Your task to perform on an android device: delete browsing data in the chrome app Image 0: 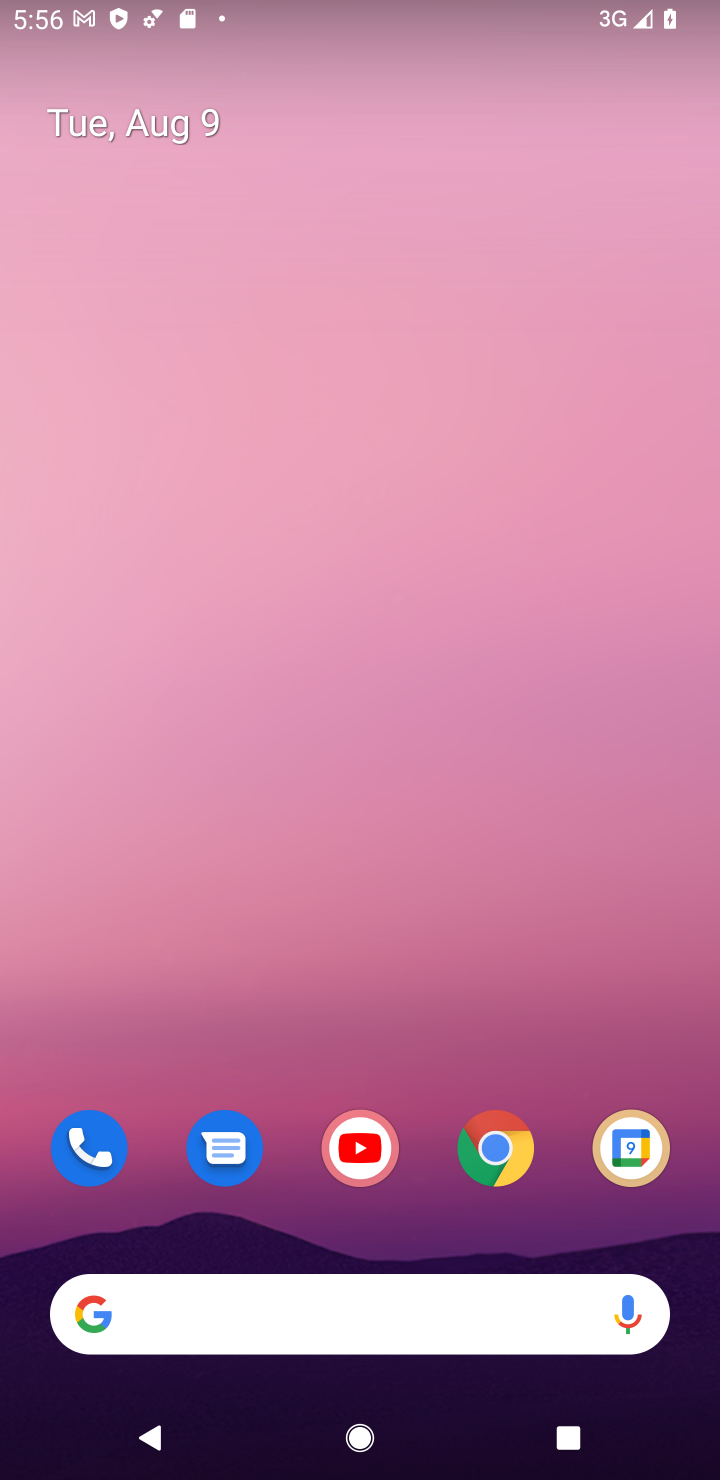
Step 0: click (507, 1159)
Your task to perform on an android device: delete browsing data in the chrome app Image 1: 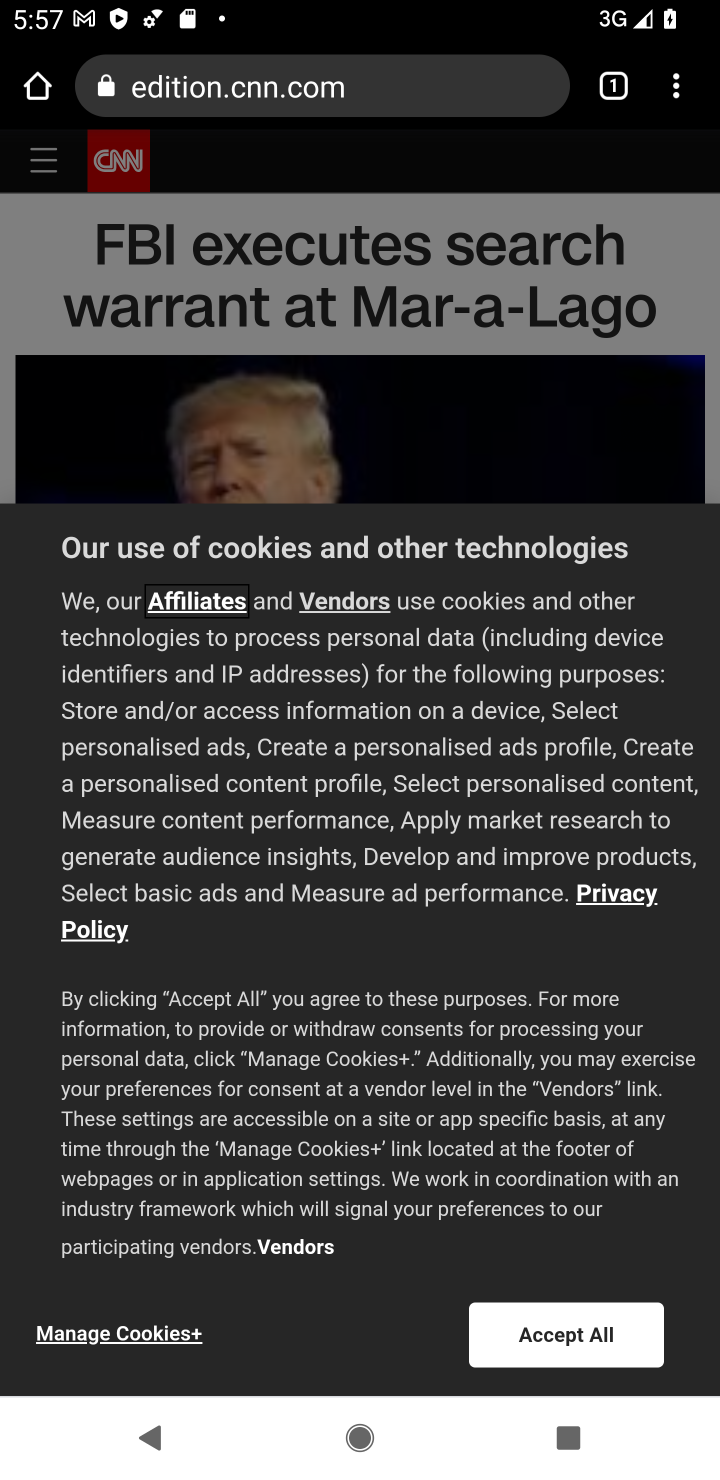
Step 1: click (676, 87)
Your task to perform on an android device: delete browsing data in the chrome app Image 2: 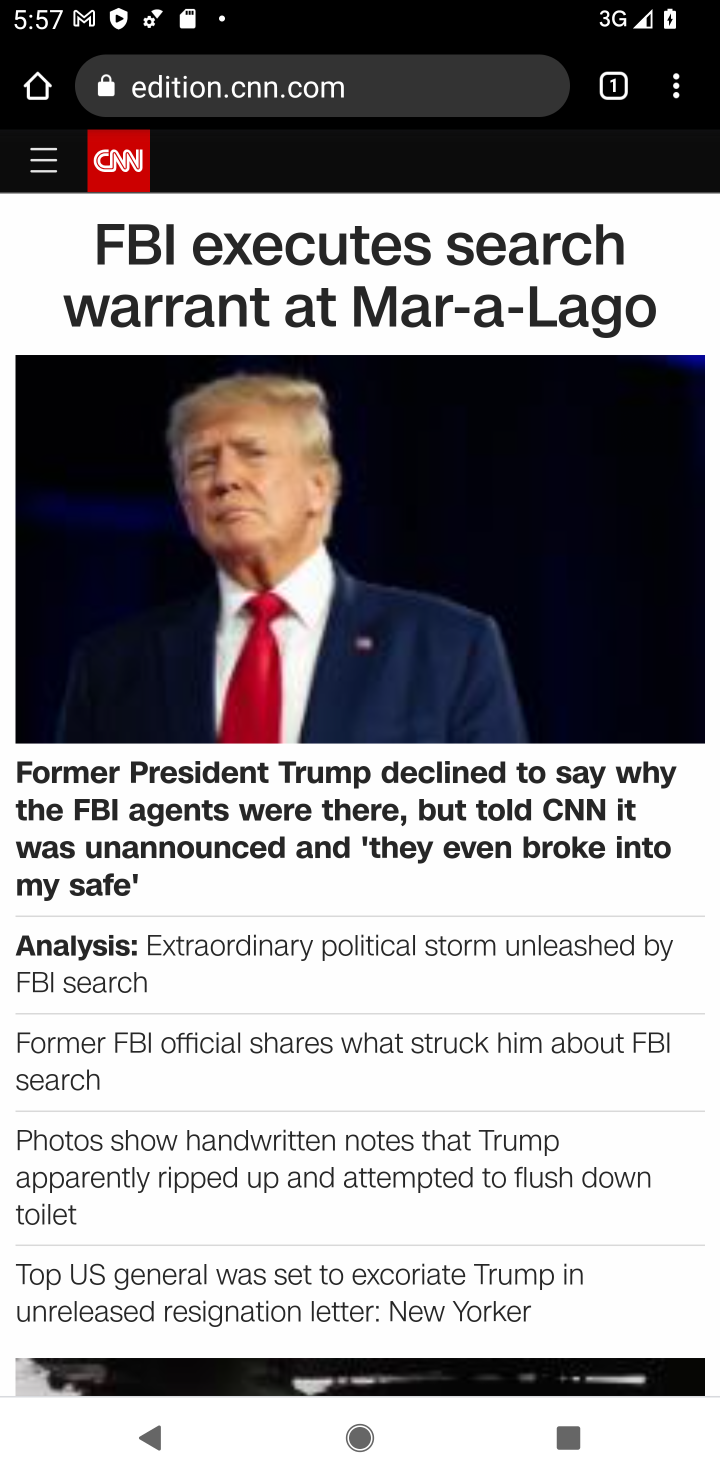
Step 2: click (684, 101)
Your task to perform on an android device: delete browsing data in the chrome app Image 3: 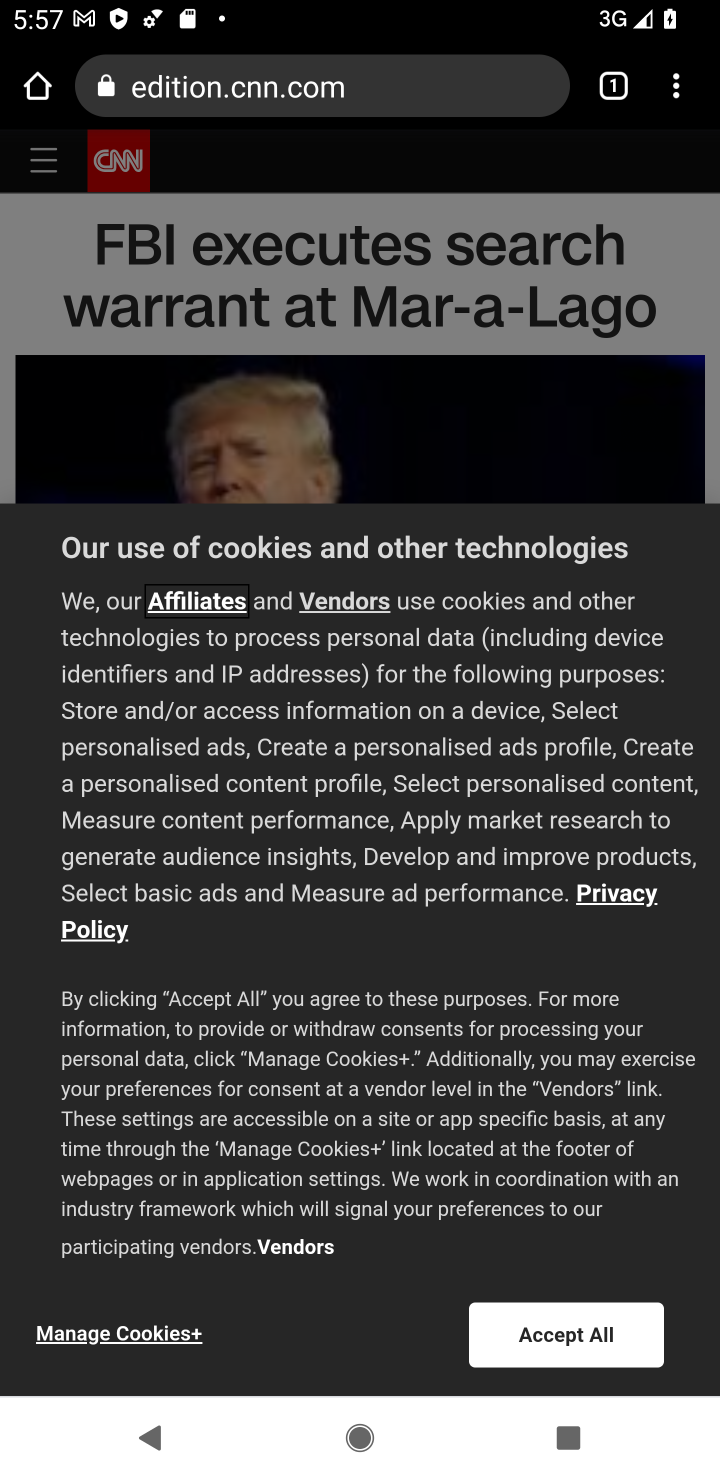
Step 3: click (685, 74)
Your task to perform on an android device: delete browsing data in the chrome app Image 4: 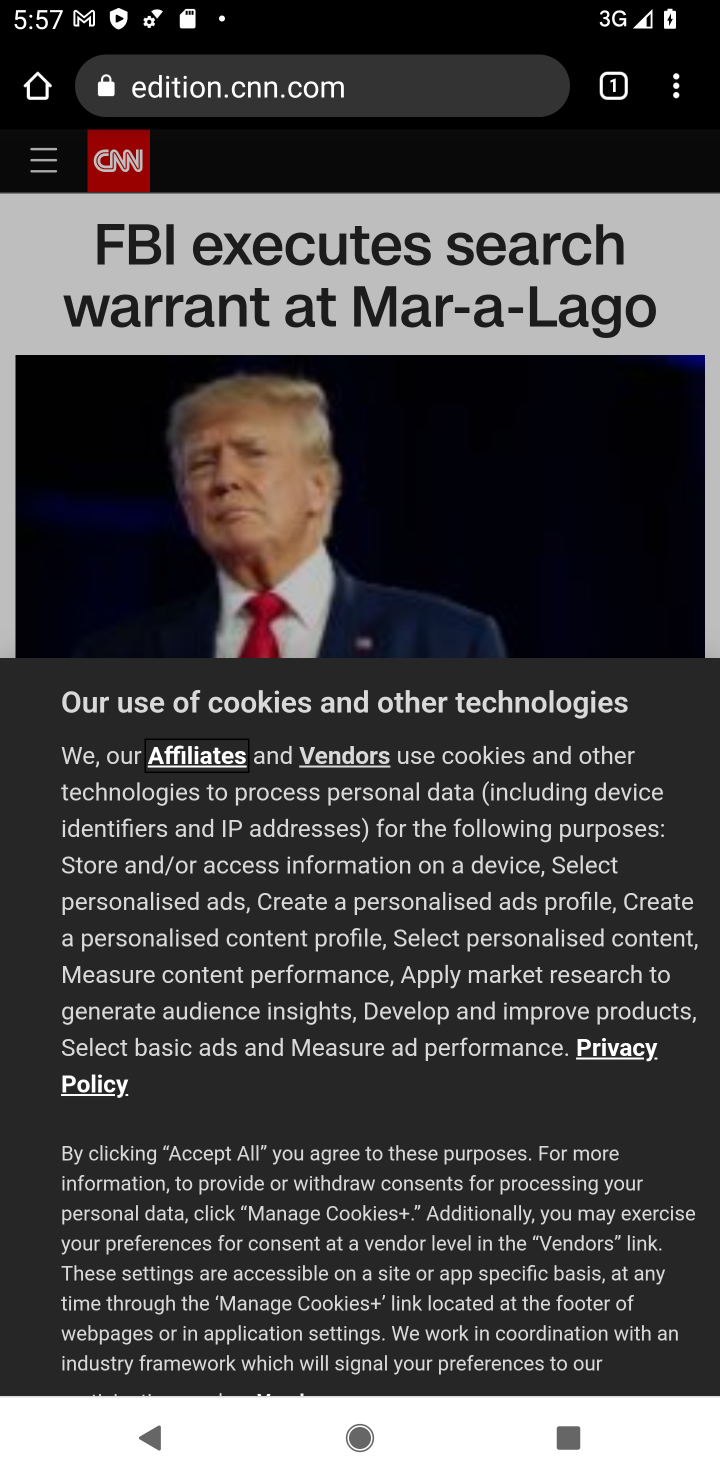
Step 4: click (670, 96)
Your task to perform on an android device: delete browsing data in the chrome app Image 5: 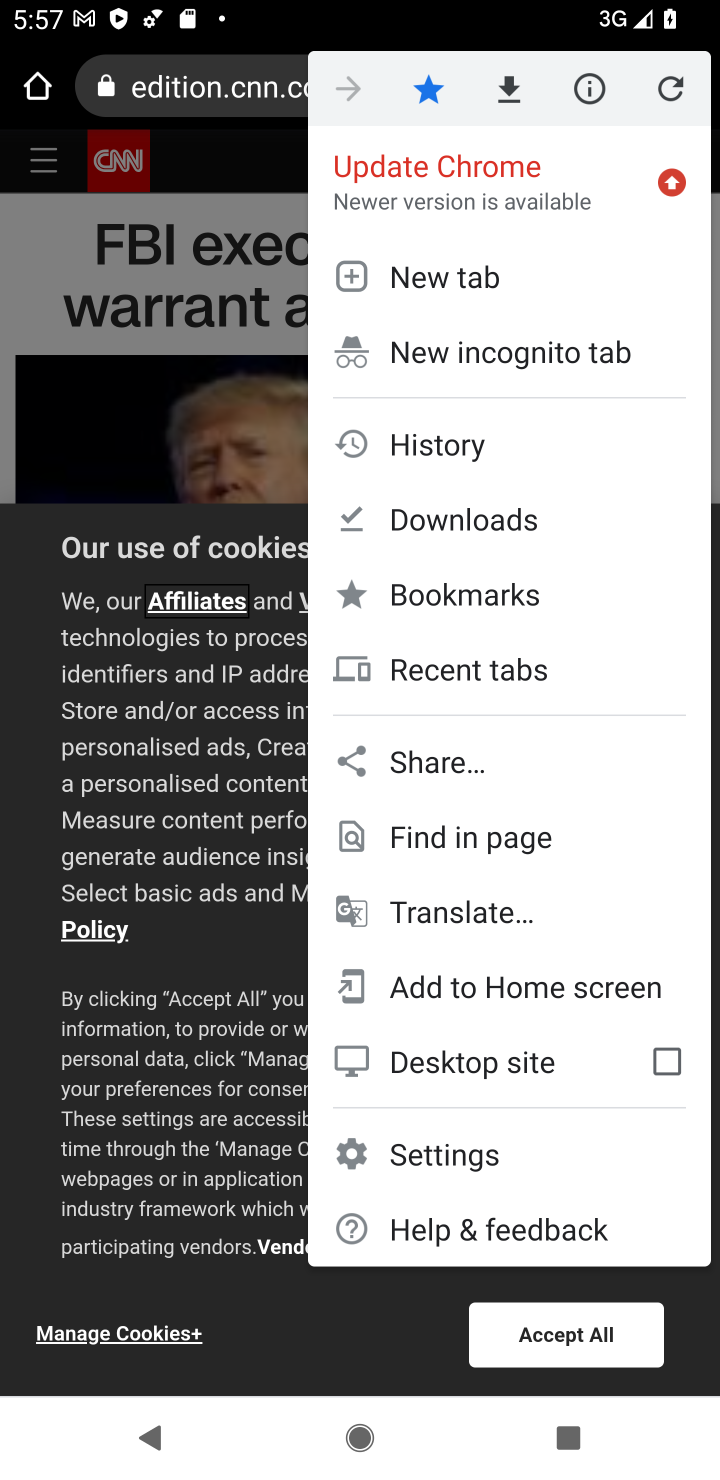
Step 5: click (440, 446)
Your task to perform on an android device: delete browsing data in the chrome app Image 6: 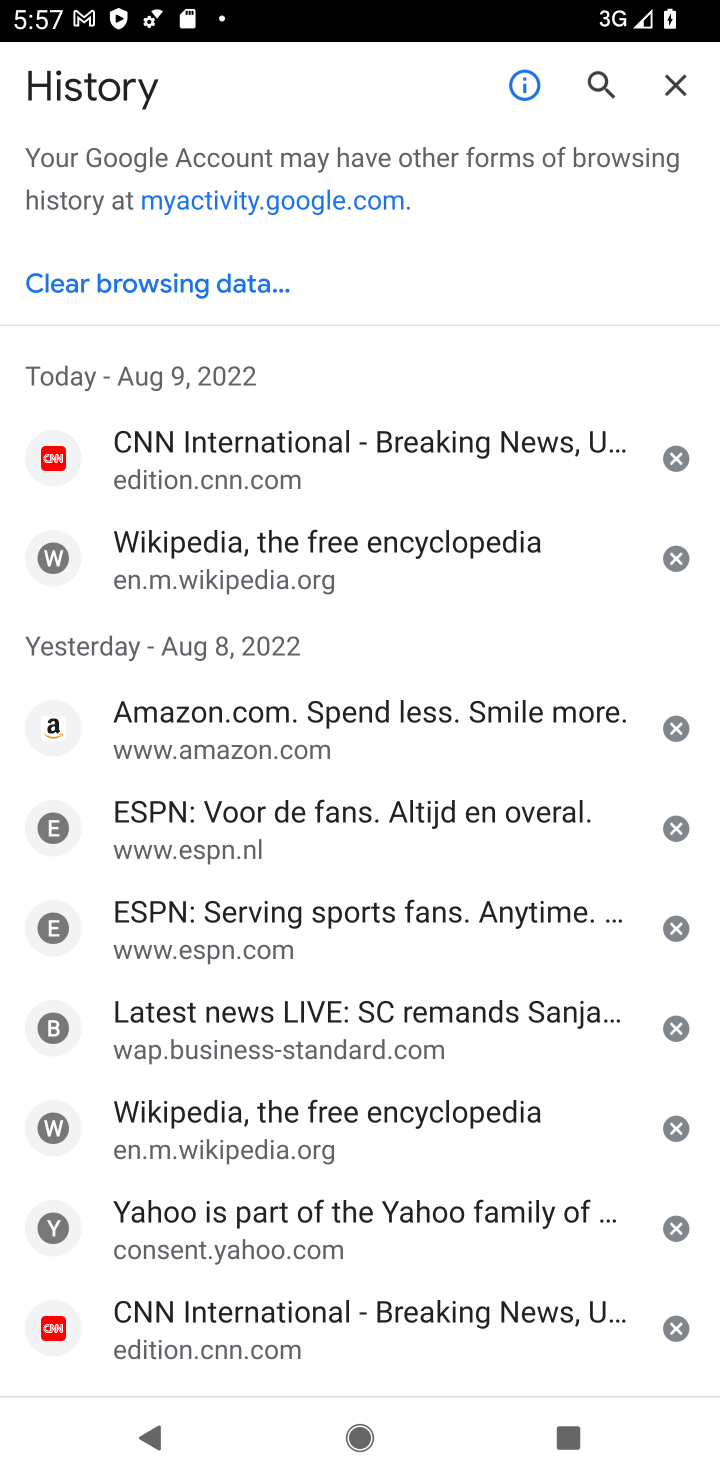
Step 6: click (159, 271)
Your task to perform on an android device: delete browsing data in the chrome app Image 7: 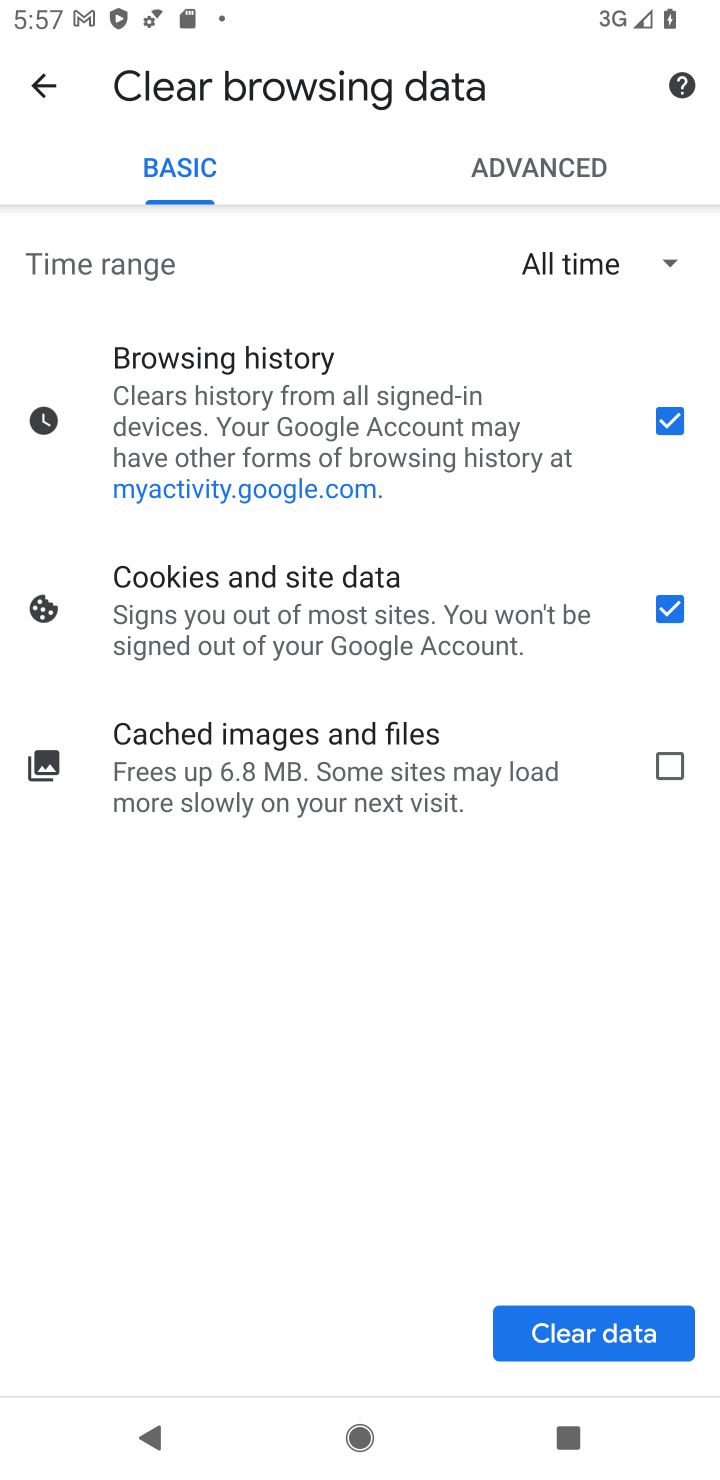
Step 7: click (685, 756)
Your task to perform on an android device: delete browsing data in the chrome app Image 8: 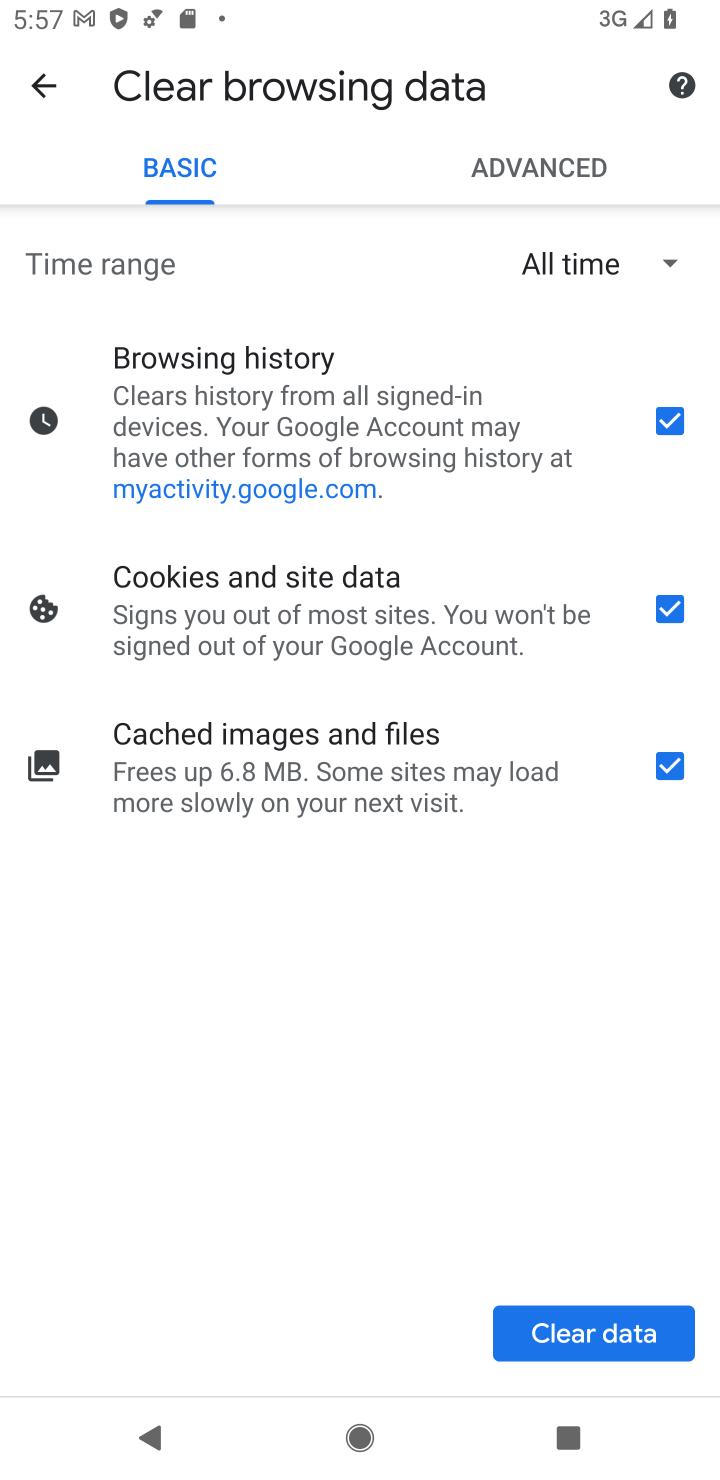
Step 8: click (614, 1329)
Your task to perform on an android device: delete browsing data in the chrome app Image 9: 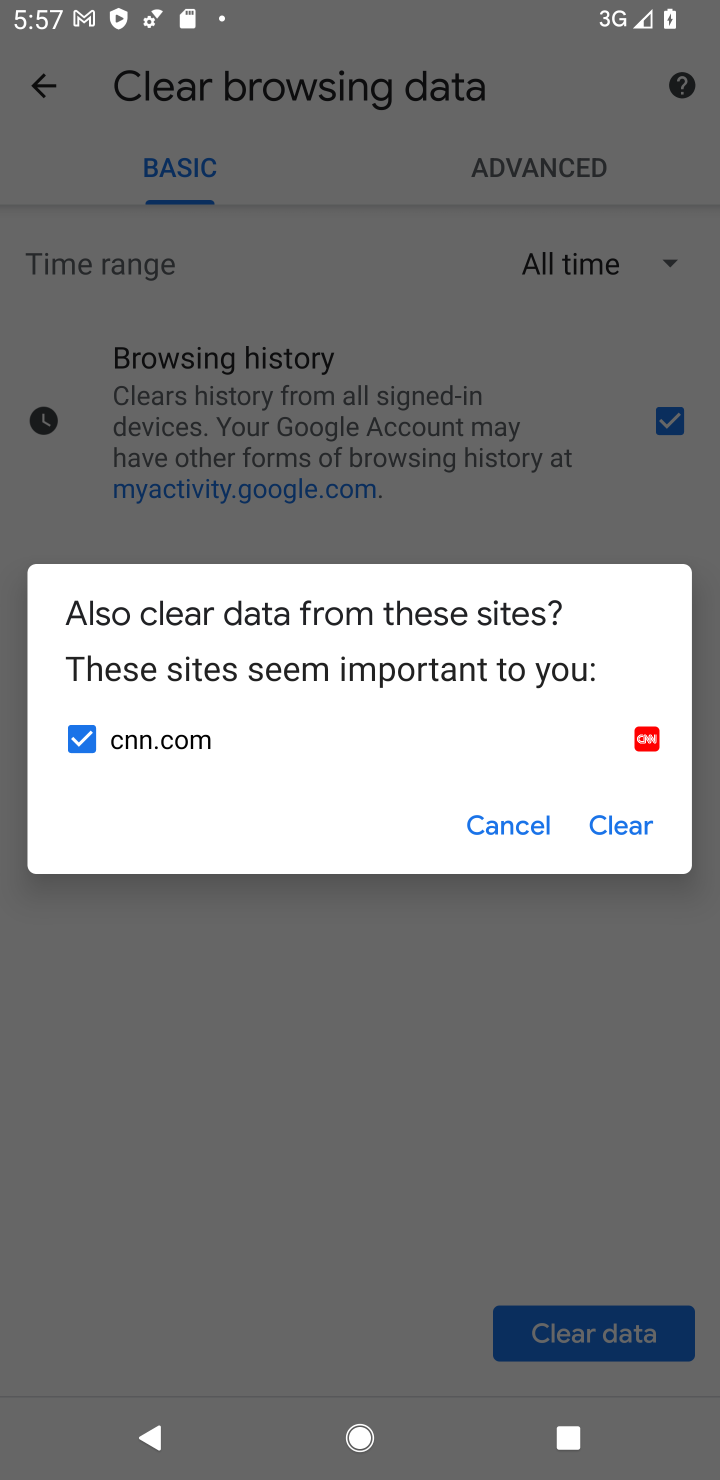
Step 9: click (619, 823)
Your task to perform on an android device: delete browsing data in the chrome app Image 10: 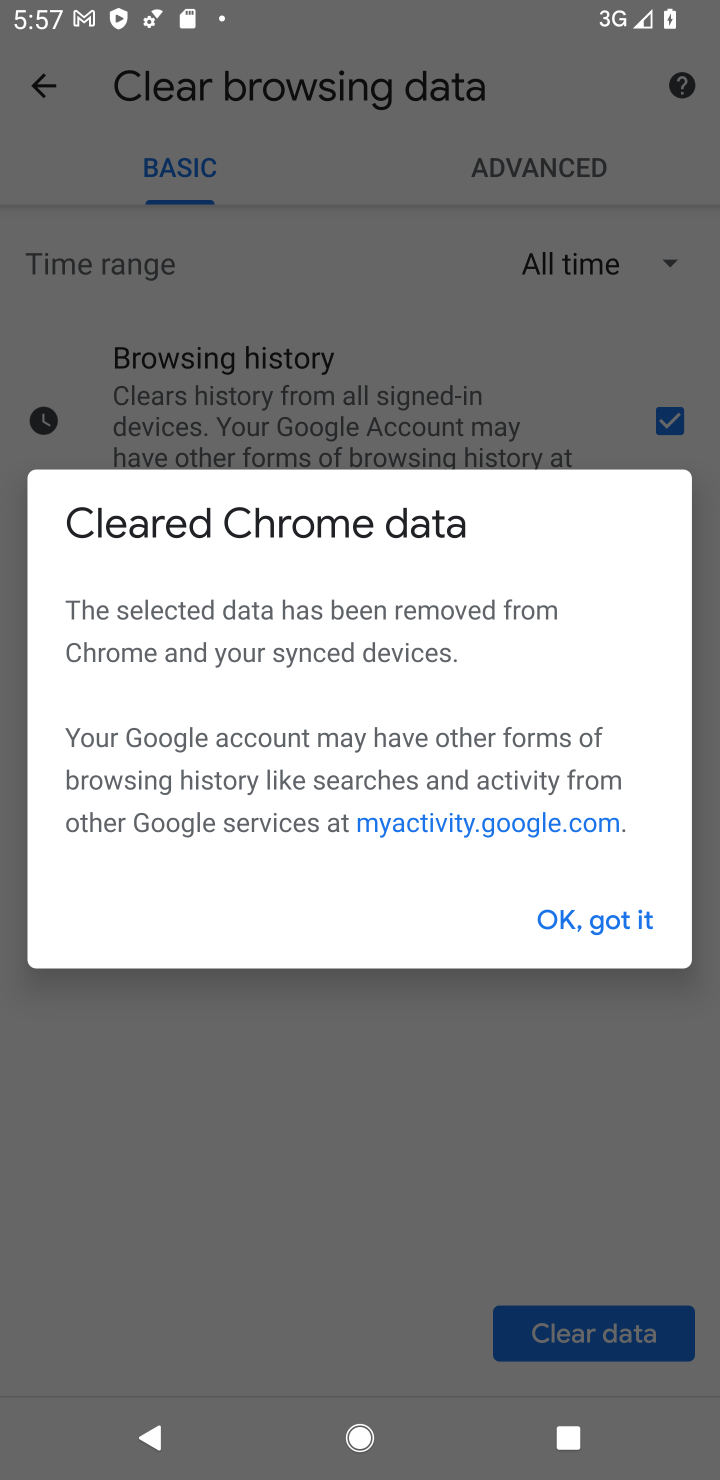
Step 10: click (592, 923)
Your task to perform on an android device: delete browsing data in the chrome app Image 11: 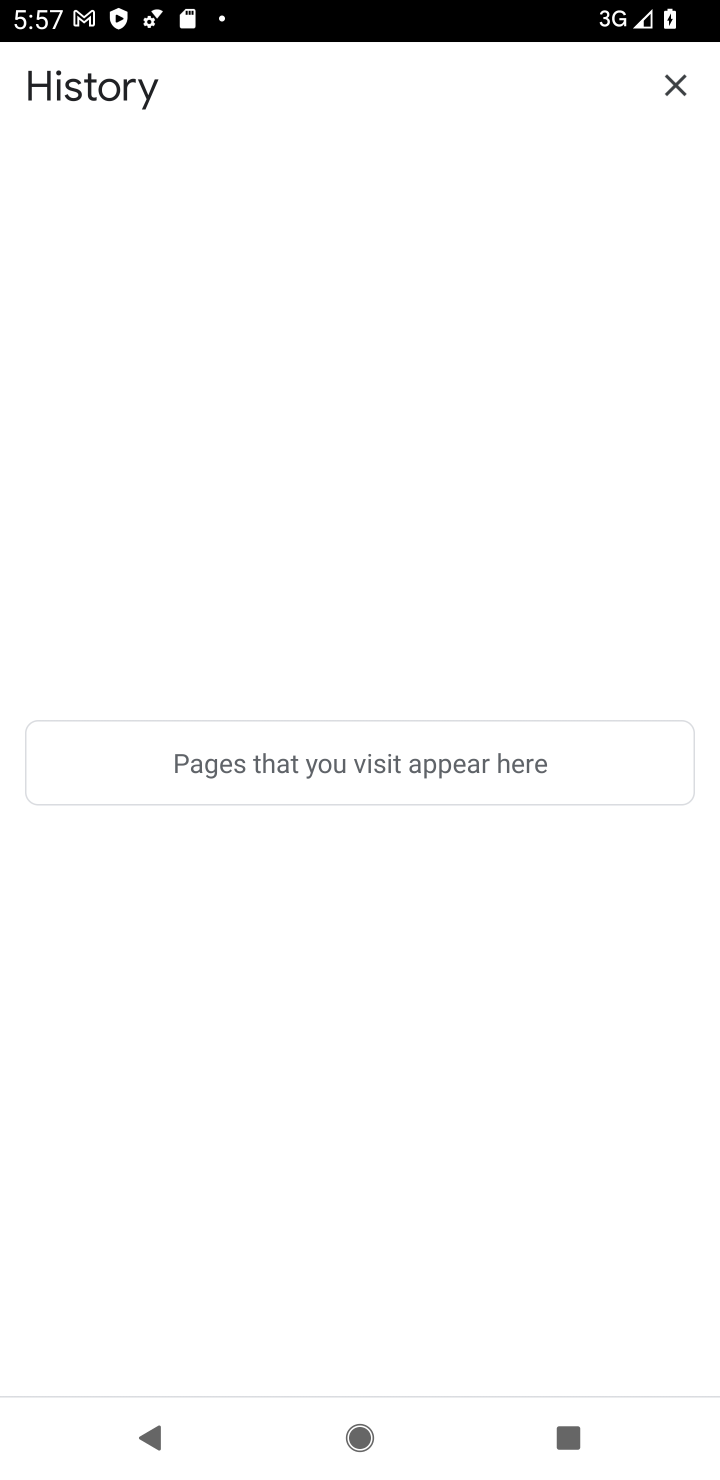
Step 11: task complete